Your task to perform on an android device: Clear all items from cart on target.com. Add asus rog to the cart on target.com Image 0: 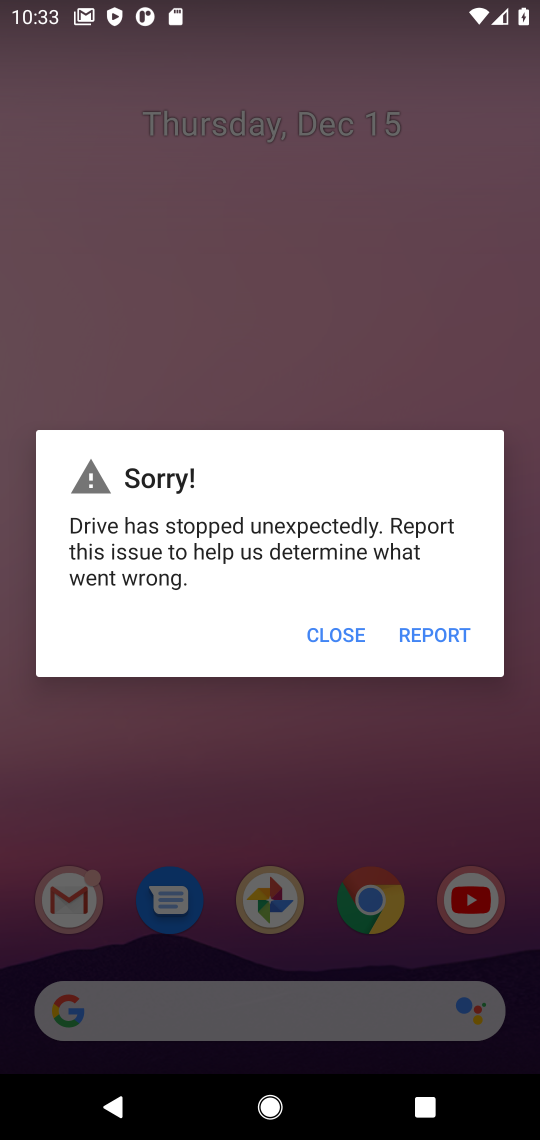
Step 0: press home button
Your task to perform on an android device: Clear all items from cart on target.com. Add asus rog to the cart on target.com Image 1: 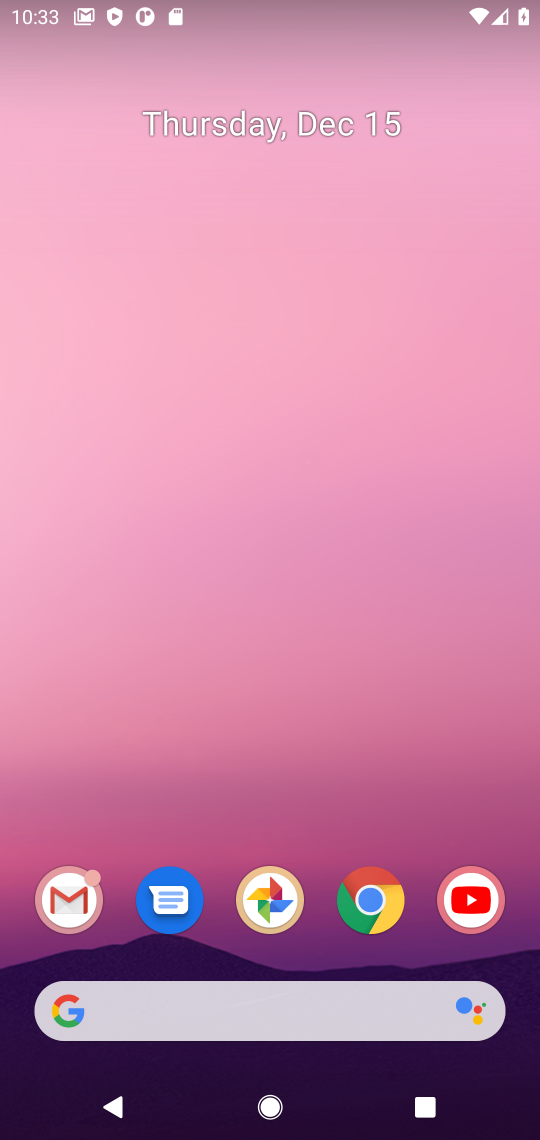
Step 1: click (364, 917)
Your task to perform on an android device: Clear all items from cart on target.com. Add asus rog to the cart on target.com Image 2: 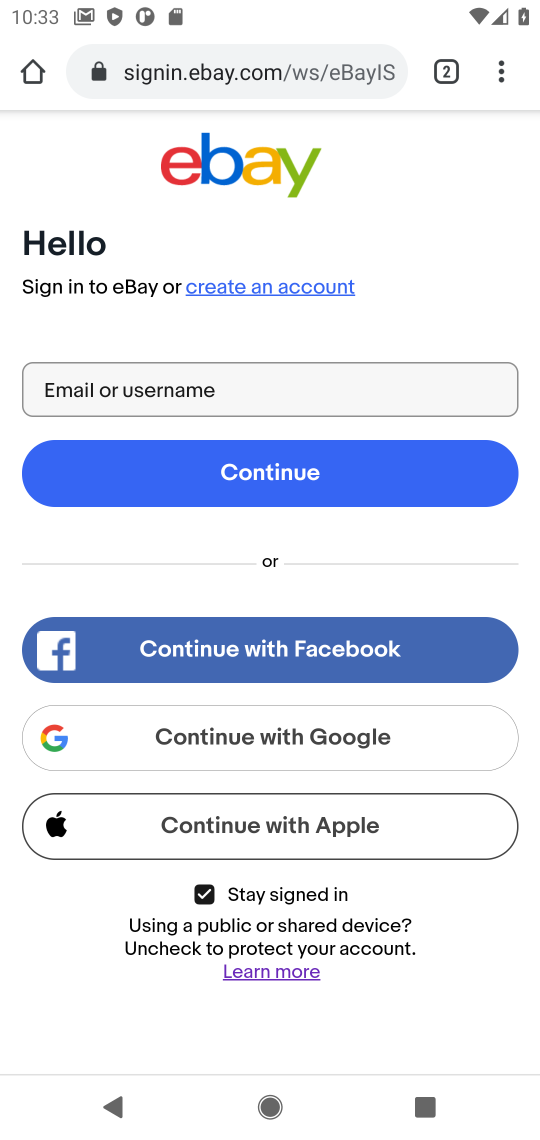
Step 2: click (190, 90)
Your task to perform on an android device: Clear all items from cart on target.com. Add asus rog to the cart on target.com Image 3: 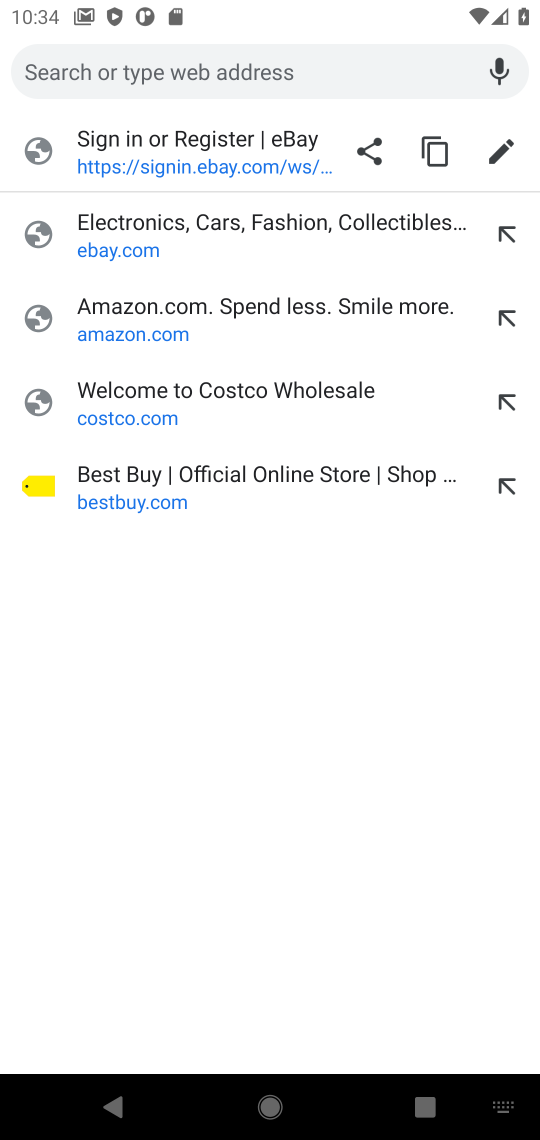
Step 3: type "target.com"
Your task to perform on an android device: Clear all items from cart on target.com. Add asus rog to the cart on target.com Image 4: 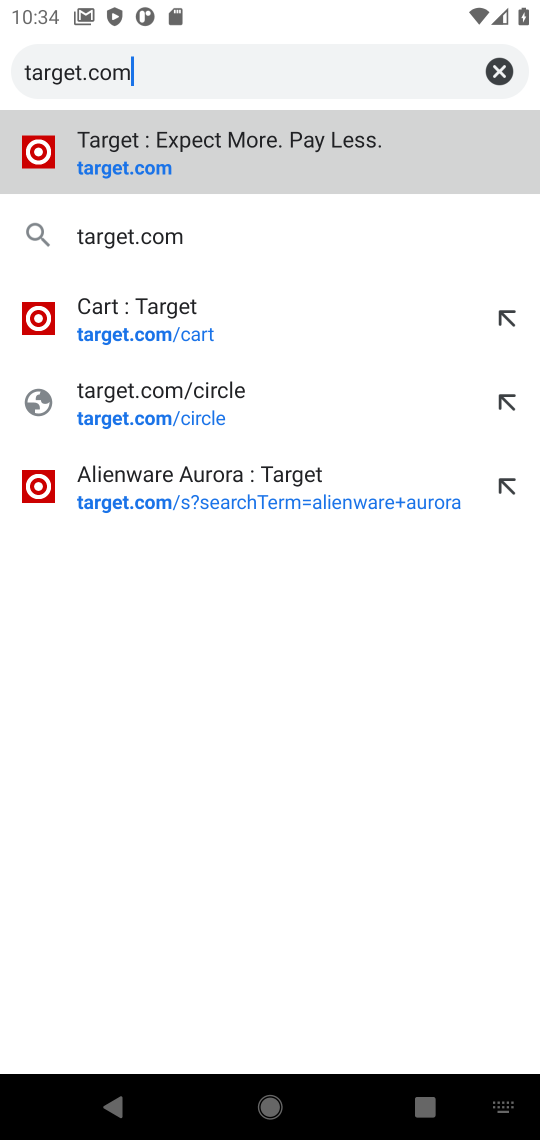
Step 4: click (174, 160)
Your task to perform on an android device: Clear all items from cart on target.com. Add asus rog to the cart on target.com Image 5: 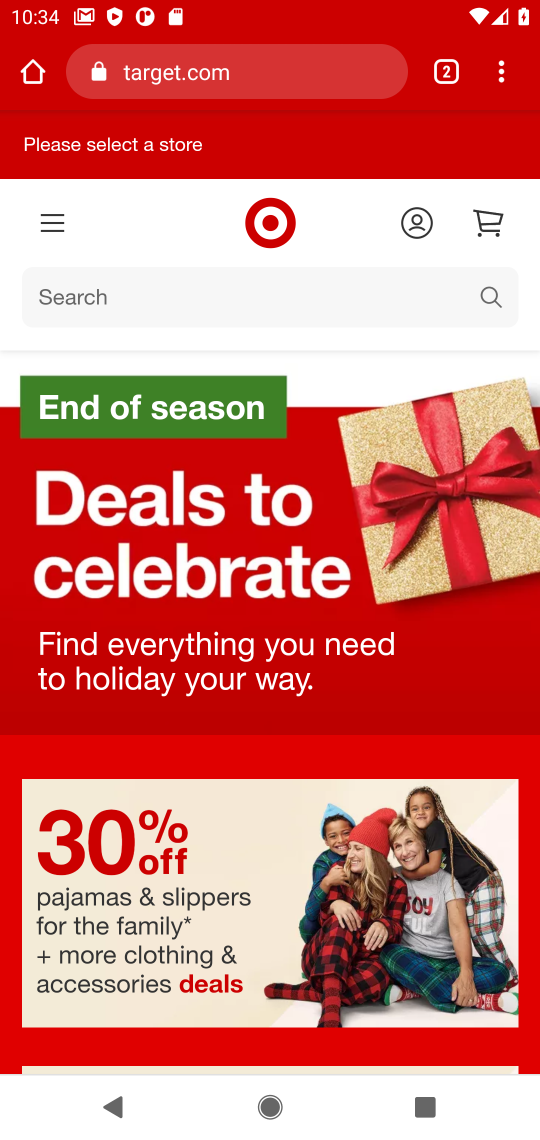
Step 5: click (490, 223)
Your task to perform on an android device: Clear all items from cart on target.com. Add asus rog to the cart on target.com Image 6: 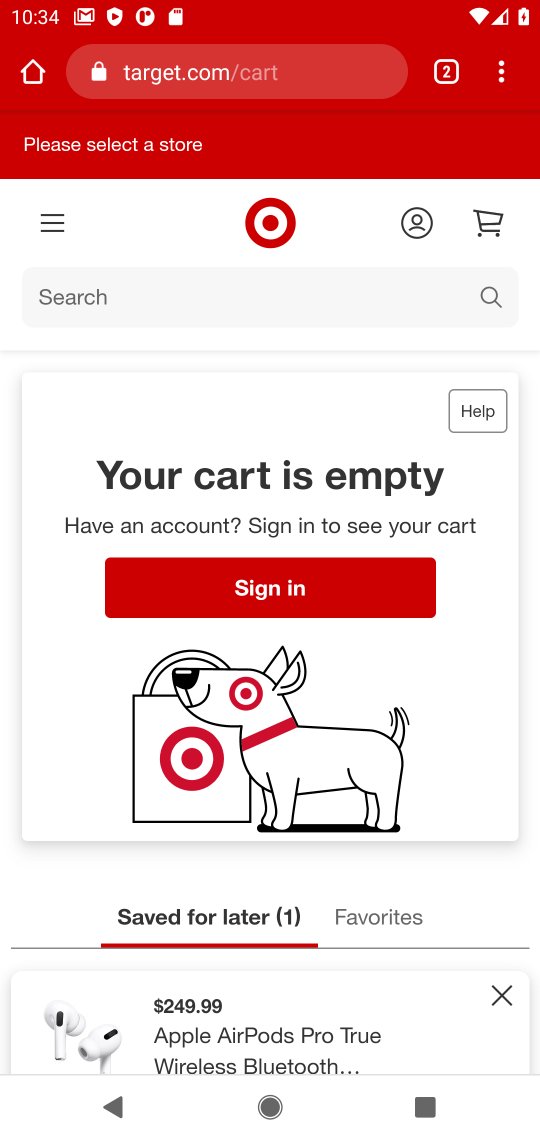
Step 6: click (135, 297)
Your task to perform on an android device: Clear all items from cart on target.com. Add asus rog to the cart on target.com Image 7: 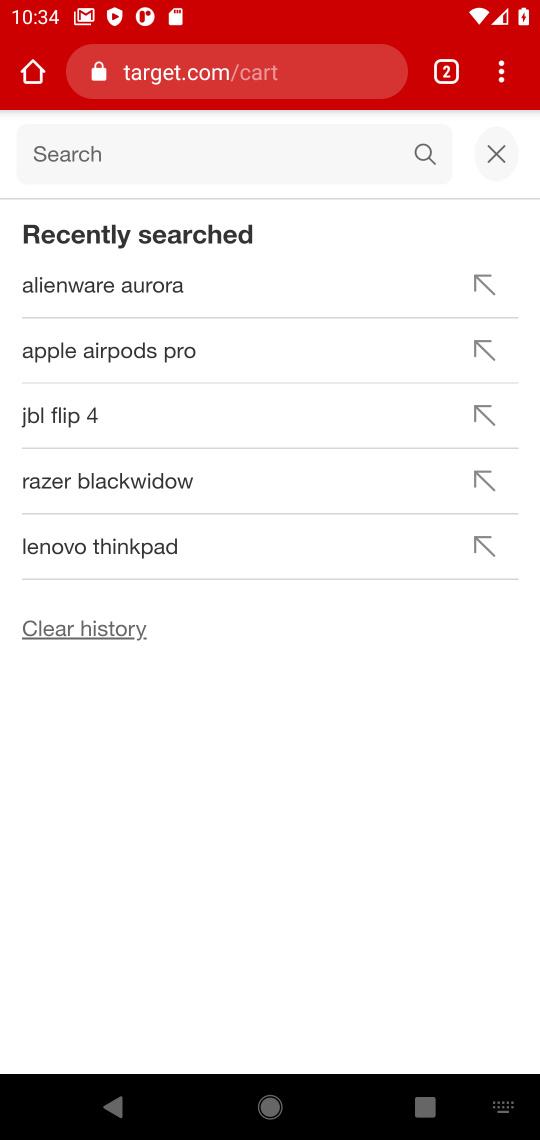
Step 7: type "asus rog"
Your task to perform on an android device: Clear all items from cart on target.com. Add asus rog to the cart on target.com Image 8: 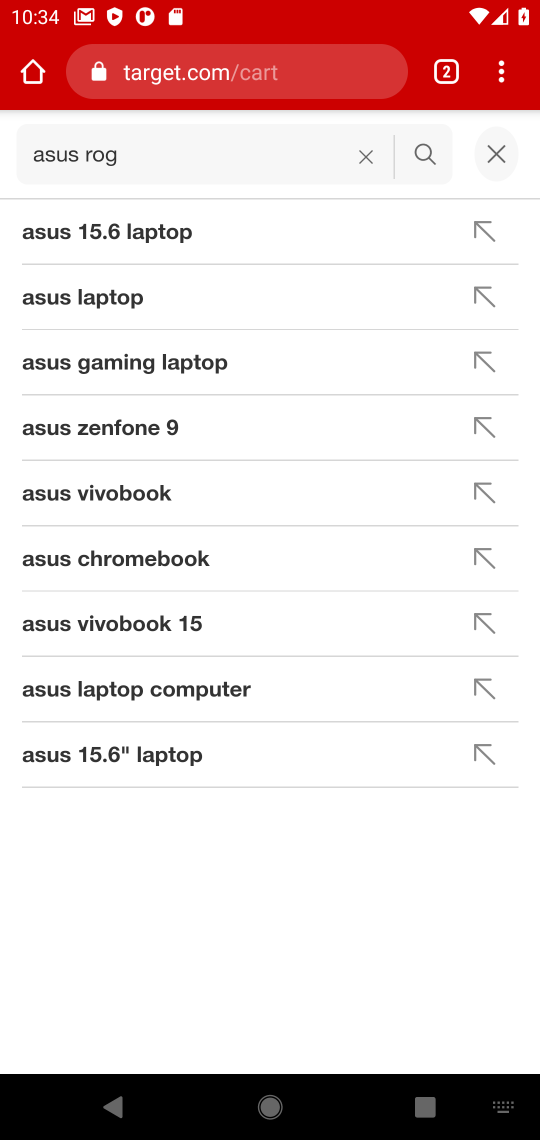
Step 8: press enter
Your task to perform on an android device: Clear all items from cart on target.com. Add asus rog to the cart on target.com Image 9: 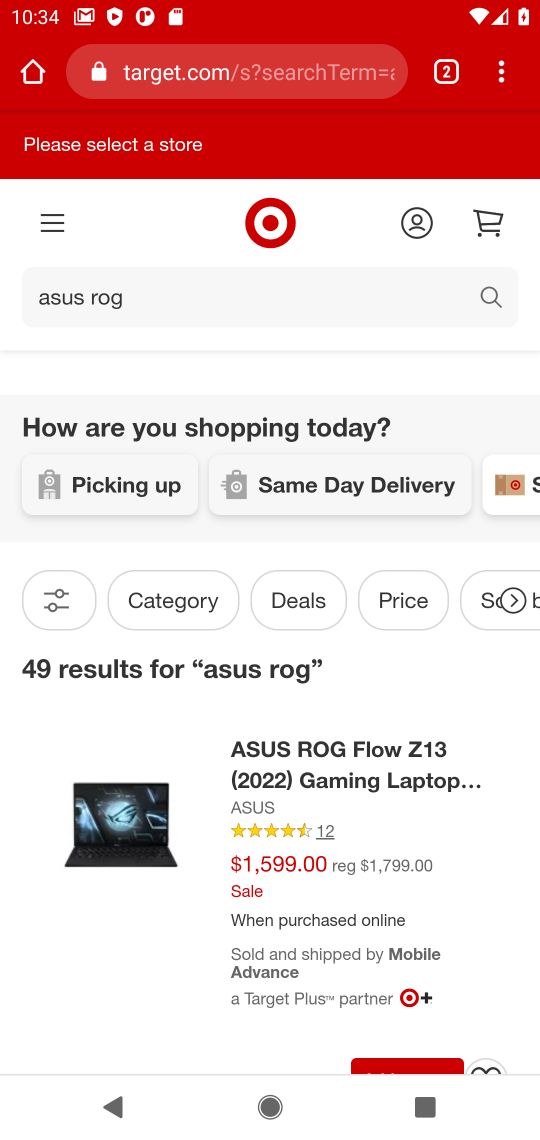
Step 9: drag from (382, 855) to (335, 548)
Your task to perform on an android device: Clear all items from cart on target.com. Add asus rog to the cart on target.com Image 10: 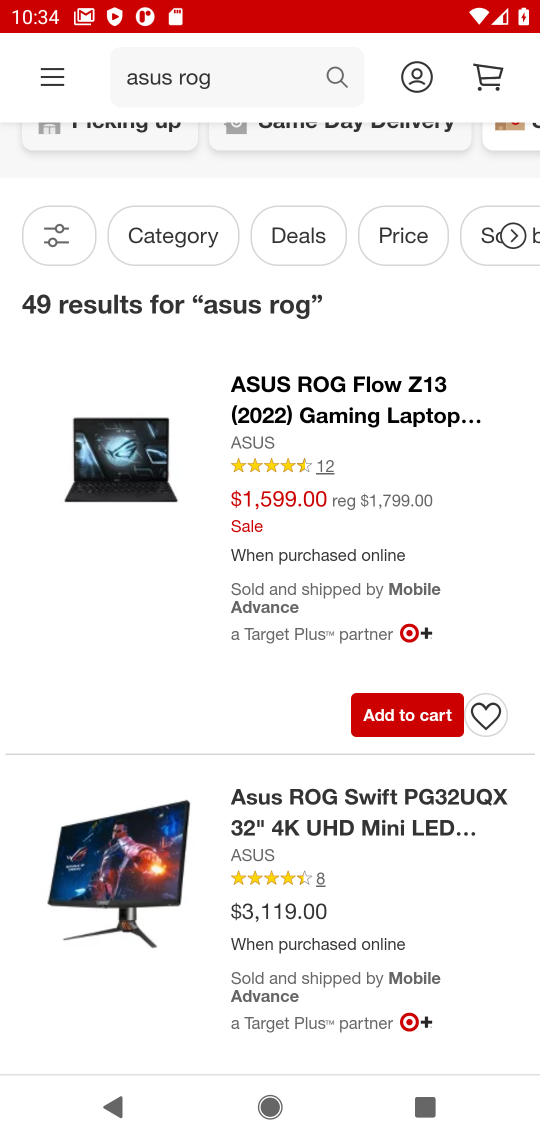
Step 10: click (408, 711)
Your task to perform on an android device: Clear all items from cart on target.com. Add asus rog to the cart on target.com Image 11: 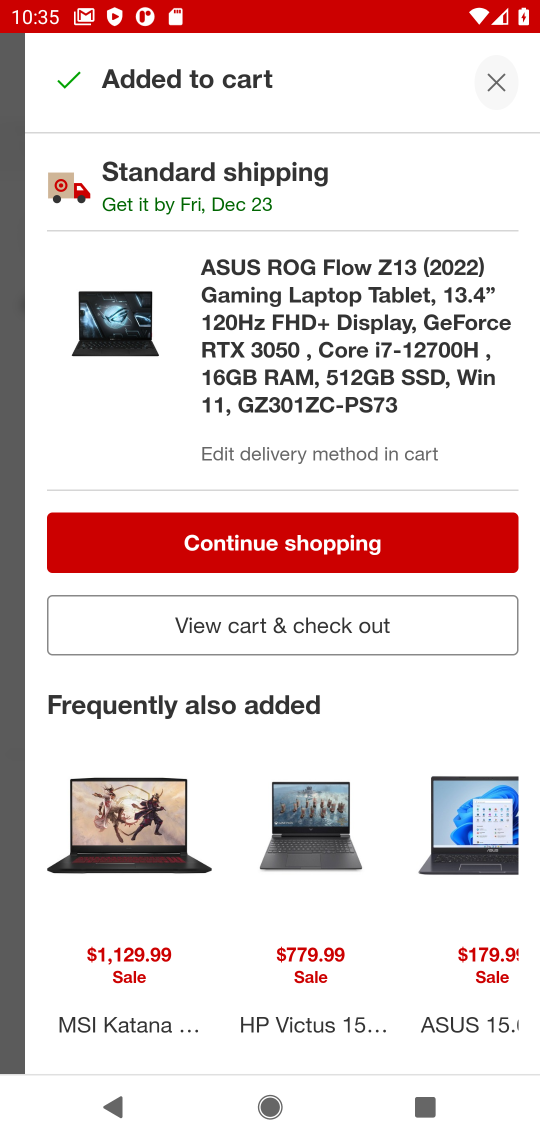
Step 11: click (338, 636)
Your task to perform on an android device: Clear all items from cart on target.com. Add asus rog to the cart on target.com Image 12: 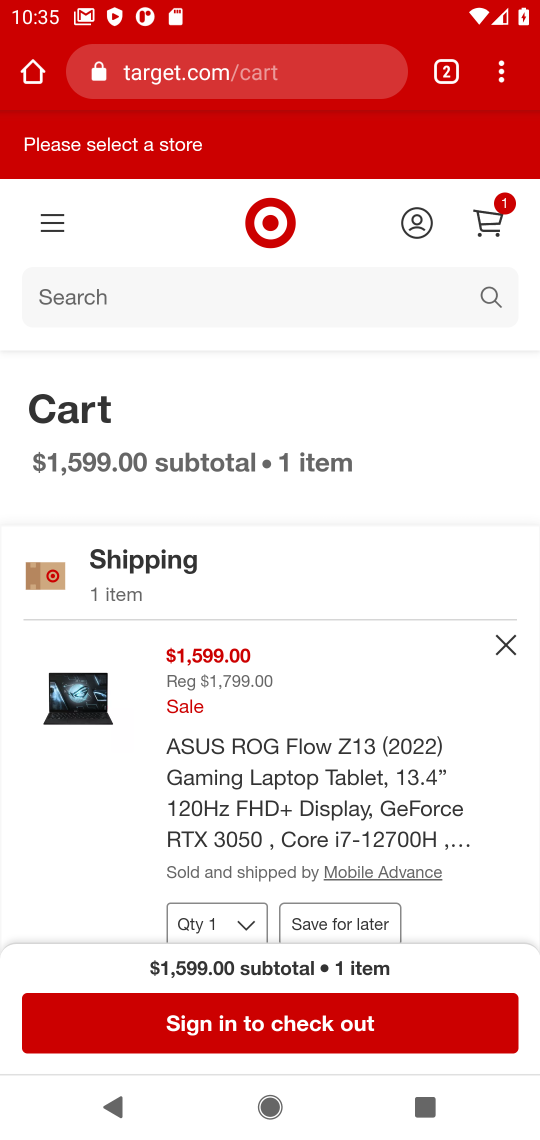
Step 12: drag from (421, 740) to (409, 412)
Your task to perform on an android device: Clear all items from cart on target.com. Add asus rog to the cart on target.com Image 13: 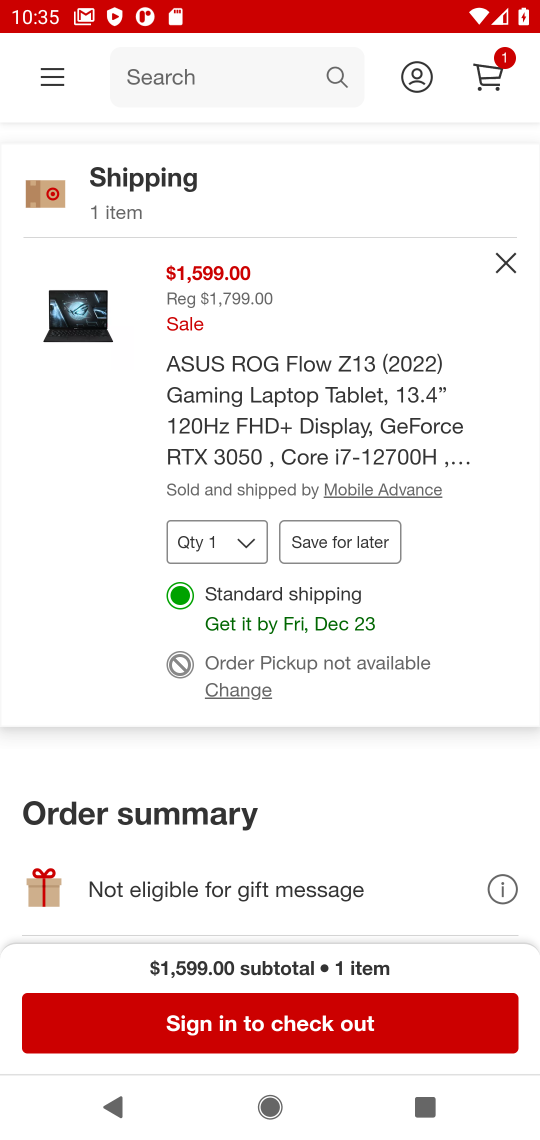
Step 13: drag from (409, 412) to (425, 663)
Your task to perform on an android device: Clear all items from cart on target.com. Add asus rog to the cart on target.com Image 14: 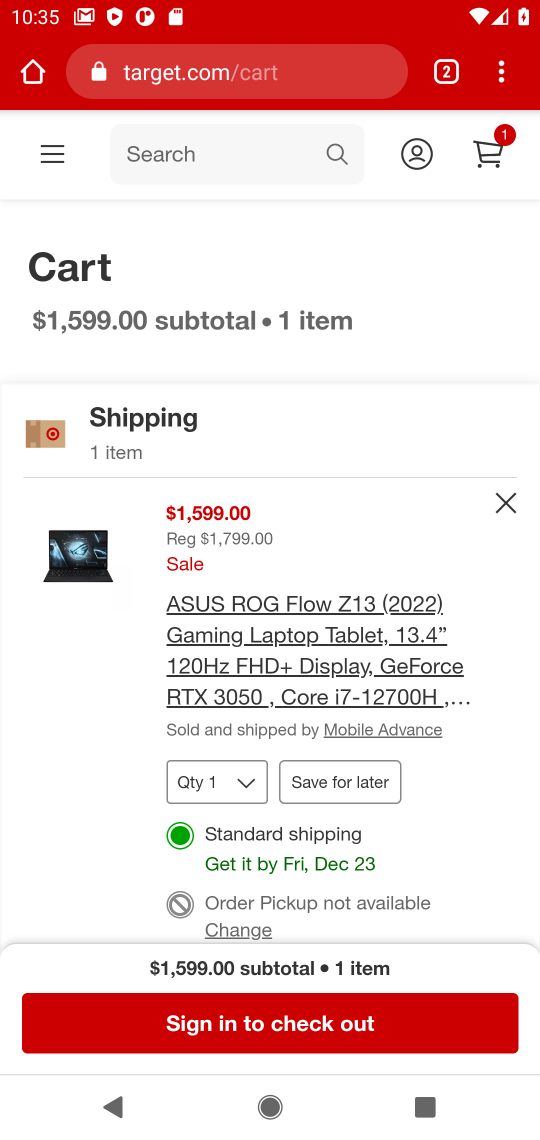
Step 14: click (359, 1024)
Your task to perform on an android device: Clear all items from cart on target.com. Add asus rog to the cart on target.com Image 15: 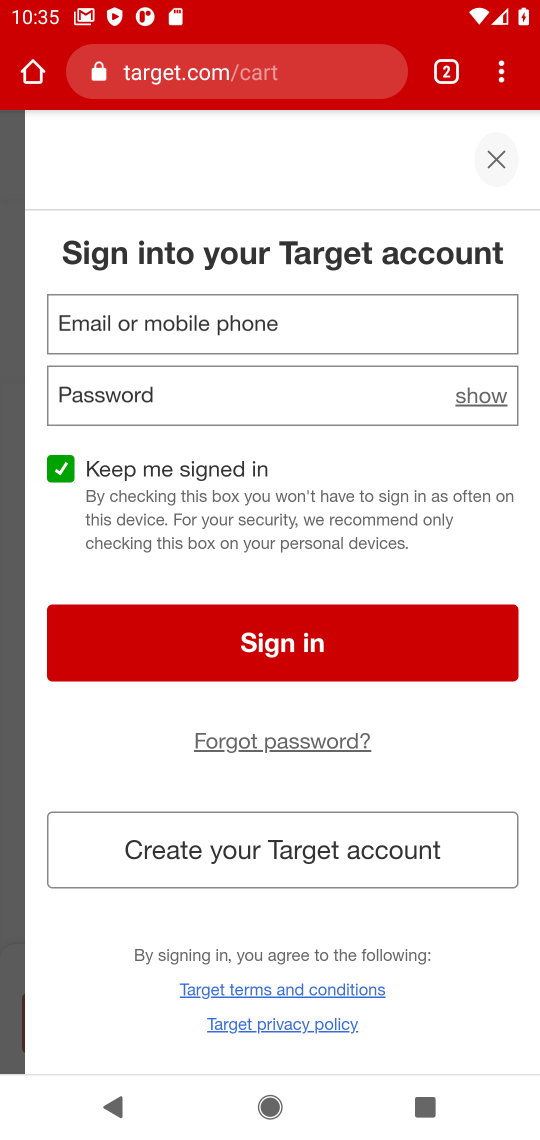
Step 15: task complete